Your task to perform on an android device: move a message to another label in the gmail app Image 0: 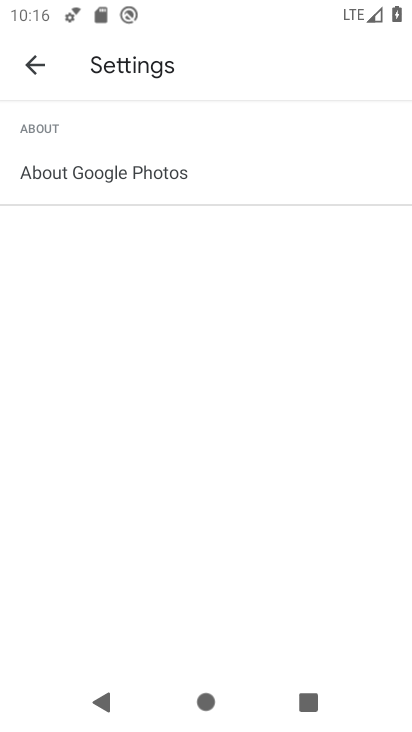
Step 0: press home button
Your task to perform on an android device: move a message to another label in the gmail app Image 1: 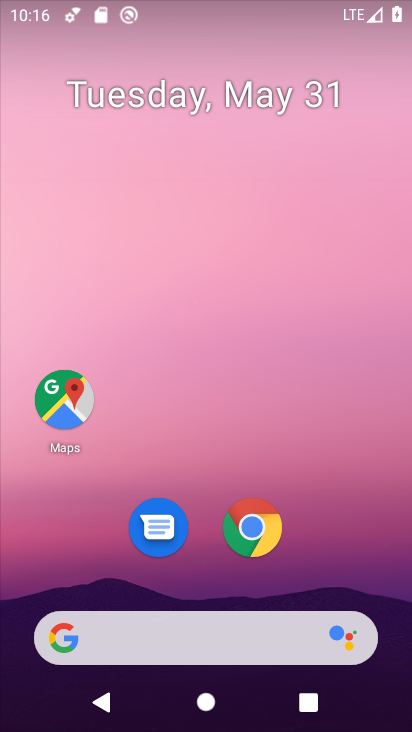
Step 1: drag from (339, 586) to (319, 15)
Your task to perform on an android device: move a message to another label in the gmail app Image 2: 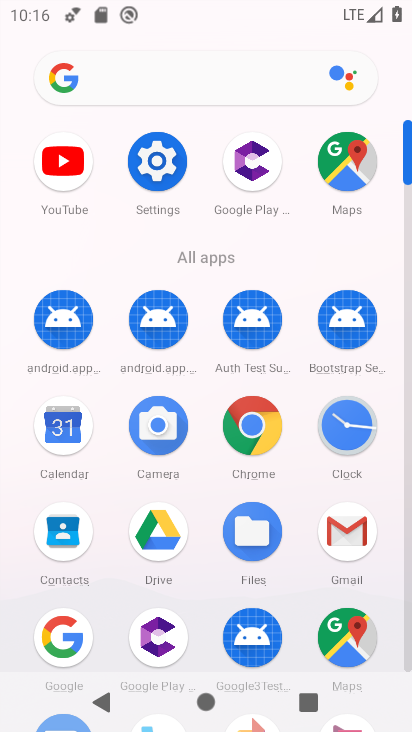
Step 2: click (353, 524)
Your task to perform on an android device: move a message to another label in the gmail app Image 3: 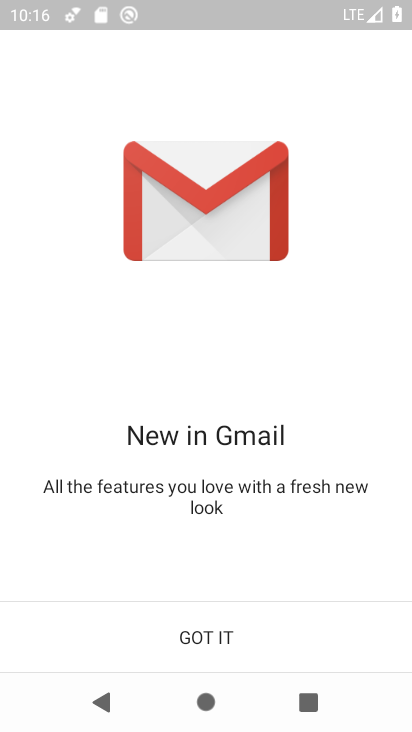
Step 3: click (218, 632)
Your task to perform on an android device: move a message to another label in the gmail app Image 4: 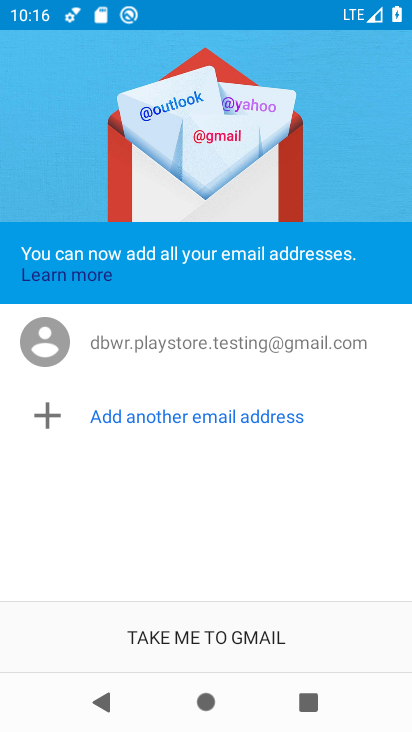
Step 4: click (218, 632)
Your task to perform on an android device: move a message to another label in the gmail app Image 5: 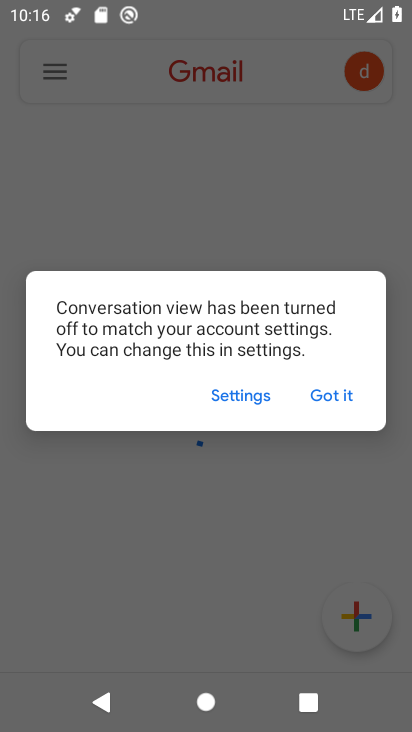
Step 5: click (321, 386)
Your task to perform on an android device: move a message to another label in the gmail app Image 6: 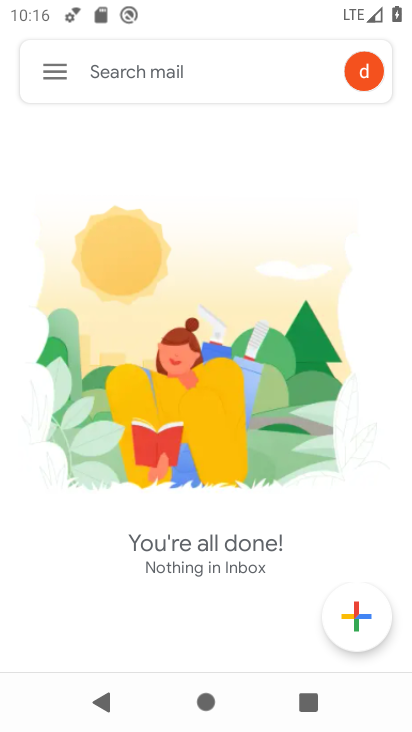
Step 6: click (48, 75)
Your task to perform on an android device: move a message to another label in the gmail app Image 7: 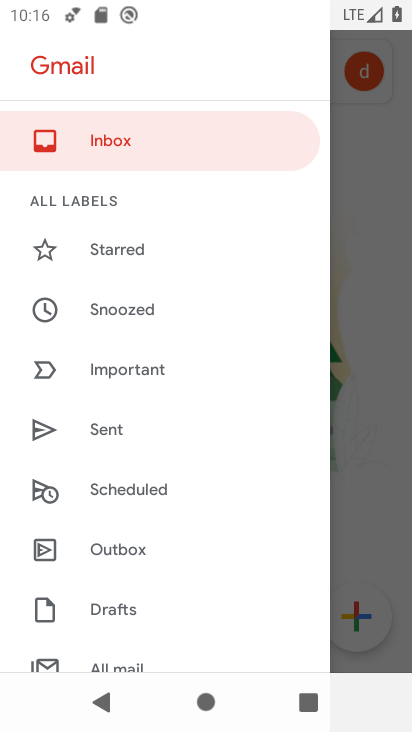
Step 7: drag from (180, 523) to (168, 204)
Your task to perform on an android device: move a message to another label in the gmail app Image 8: 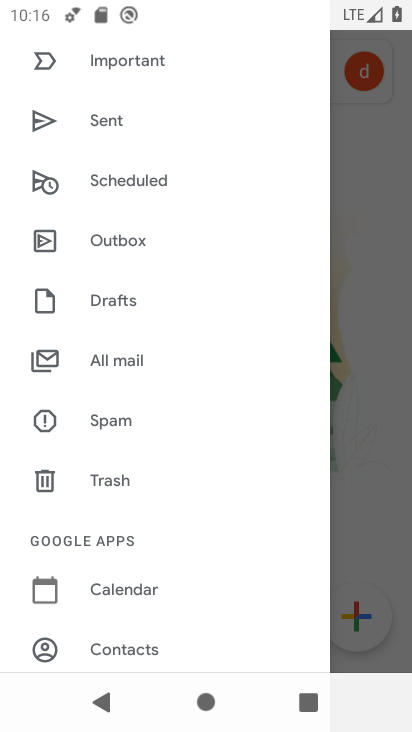
Step 8: click (95, 363)
Your task to perform on an android device: move a message to another label in the gmail app Image 9: 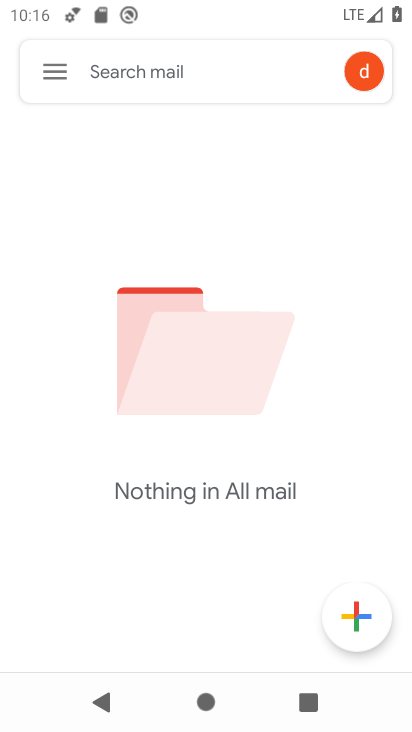
Step 9: task complete